Your task to perform on an android device: refresh tabs in the chrome app Image 0: 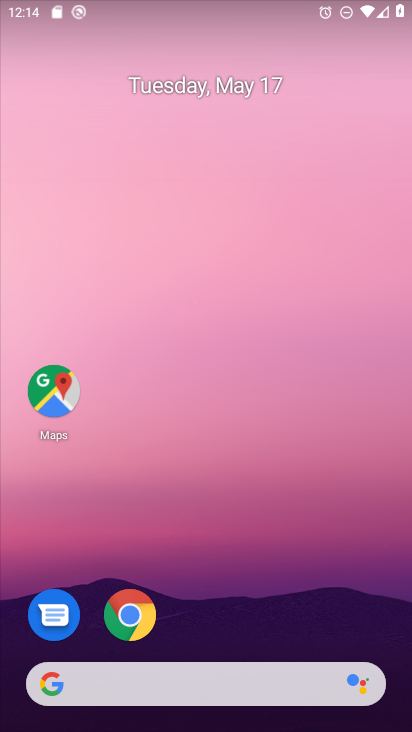
Step 0: click (126, 605)
Your task to perform on an android device: refresh tabs in the chrome app Image 1: 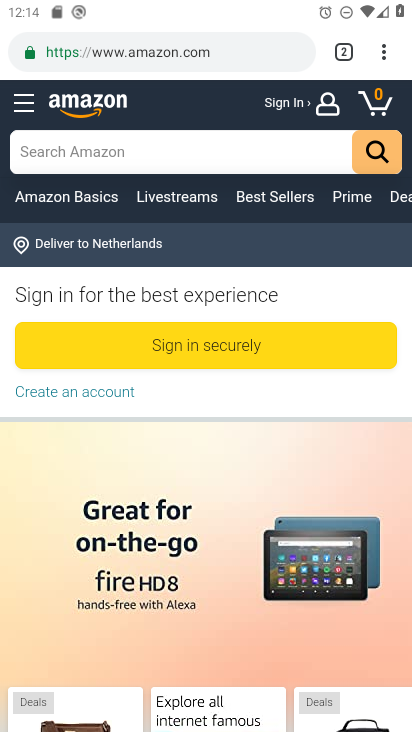
Step 1: click (386, 54)
Your task to perform on an android device: refresh tabs in the chrome app Image 2: 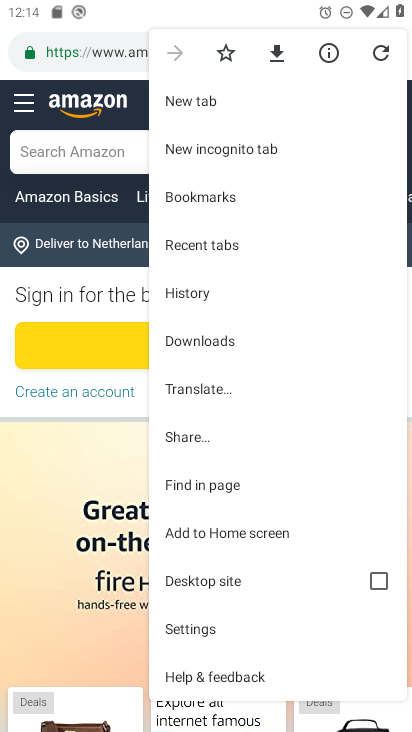
Step 2: click (379, 56)
Your task to perform on an android device: refresh tabs in the chrome app Image 3: 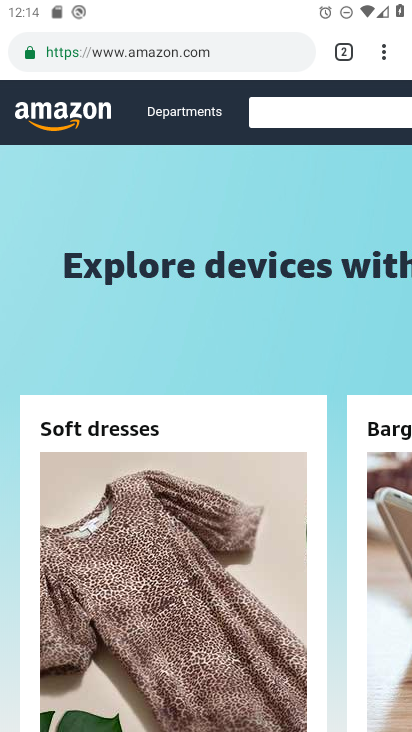
Step 3: task complete